Your task to perform on an android device: turn on translation in the chrome app Image 0: 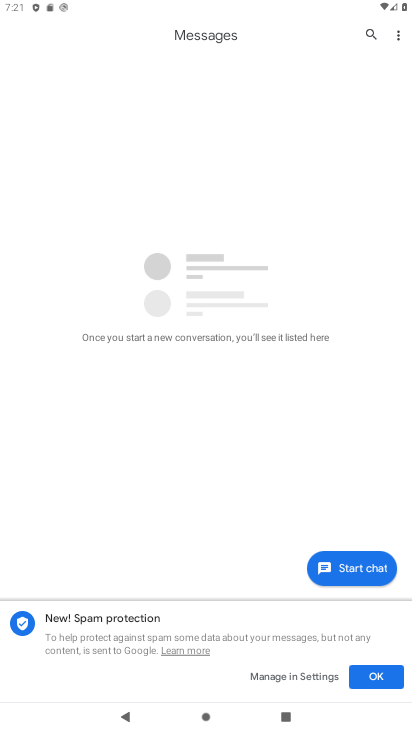
Step 0: press home button
Your task to perform on an android device: turn on translation in the chrome app Image 1: 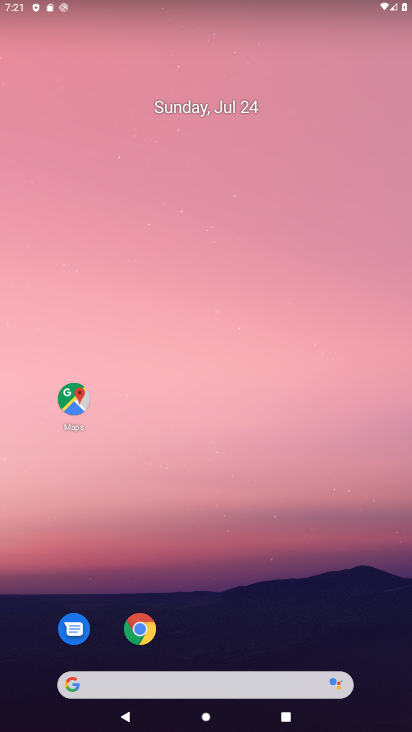
Step 1: drag from (360, 589) to (374, 70)
Your task to perform on an android device: turn on translation in the chrome app Image 2: 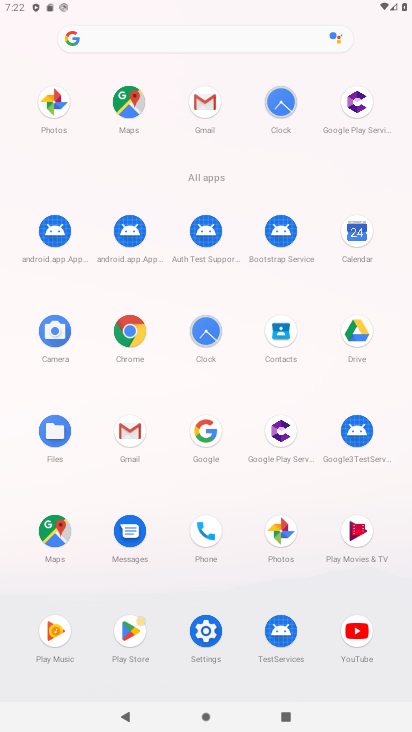
Step 2: click (127, 335)
Your task to perform on an android device: turn on translation in the chrome app Image 3: 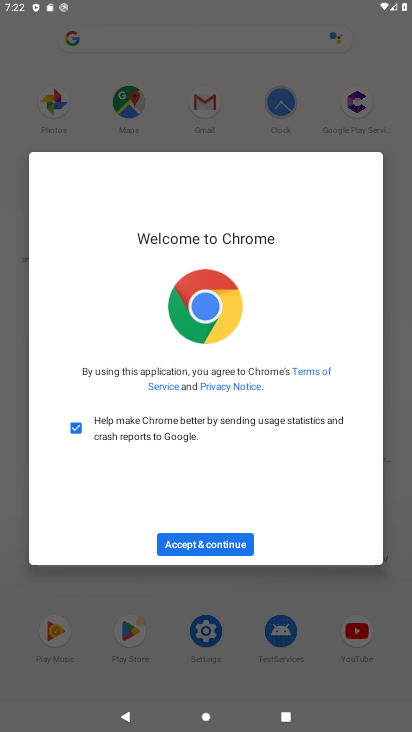
Step 3: click (213, 547)
Your task to perform on an android device: turn on translation in the chrome app Image 4: 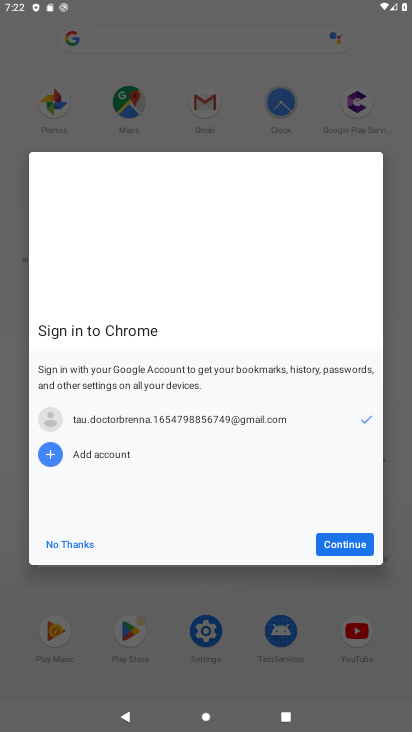
Step 4: click (339, 540)
Your task to perform on an android device: turn on translation in the chrome app Image 5: 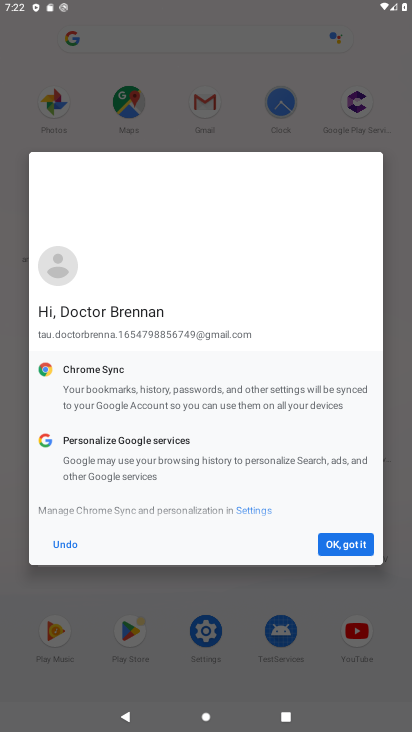
Step 5: click (339, 540)
Your task to perform on an android device: turn on translation in the chrome app Image 6: 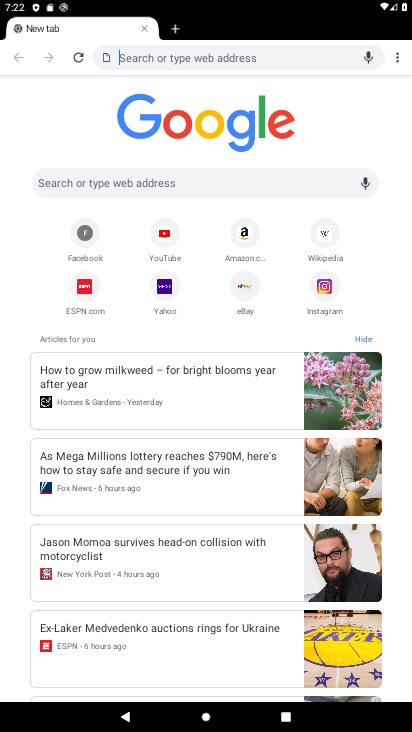
Step 6: click (395, 54)
Your task to perform on an android device: turn on translation in the chrome app Image 7: 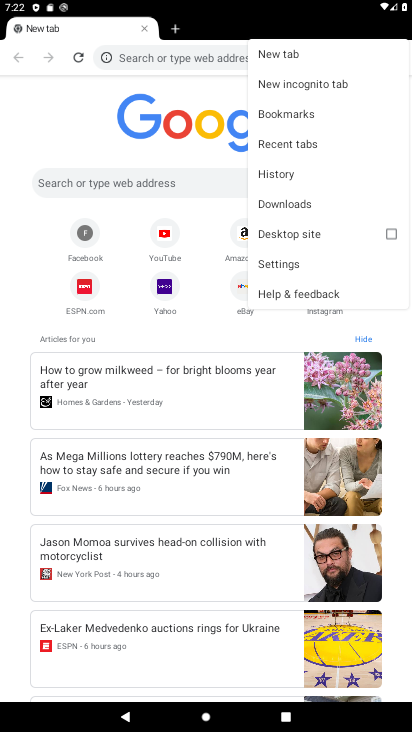
Step 7: click (293, 267)
Your task to perform on an android device: turn on translation in the chrome app Image 8: 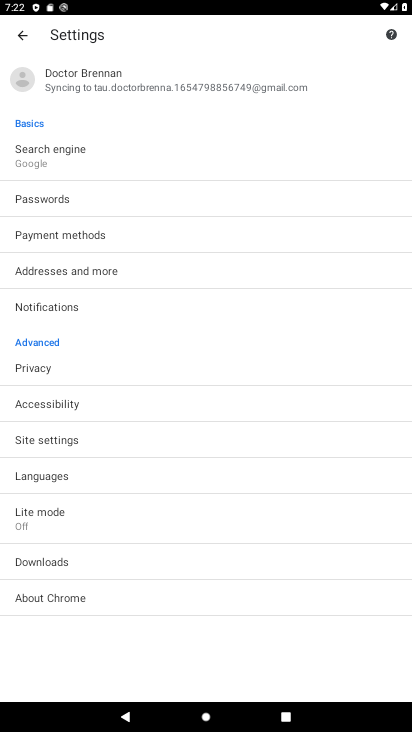
Step 8: drag from (301, 456) to (321, 380)
Your task to perform on an android device: turn on translation in the chrome app Image 9: 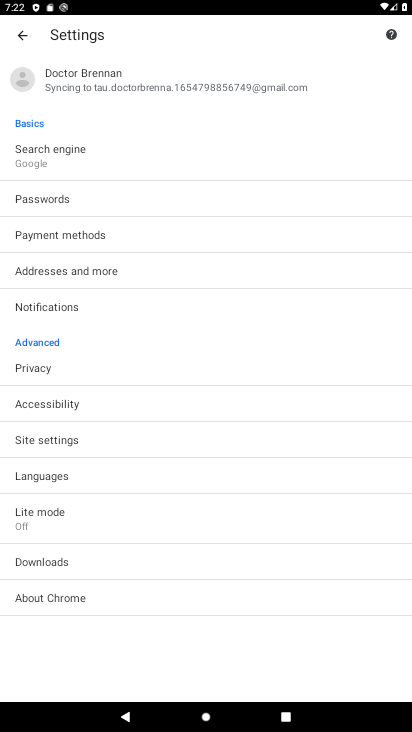
Step 9: click (309, 480)
Your task to perform on an android device: turn on translation in the chrome app Image 10: 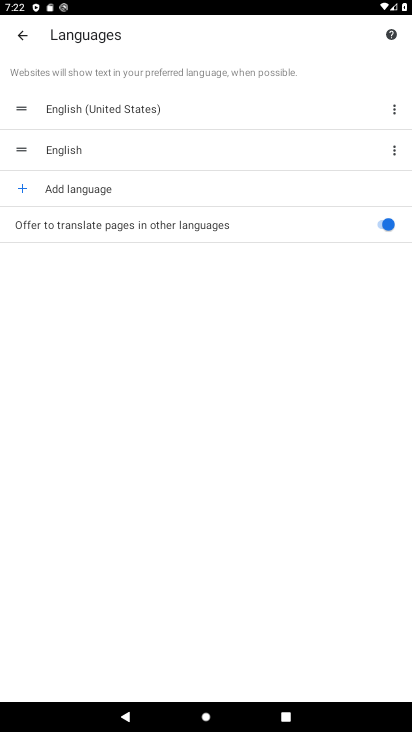
Step 10: task complete